Your task to perform on an android device: Go to Wikipedia Image 0: 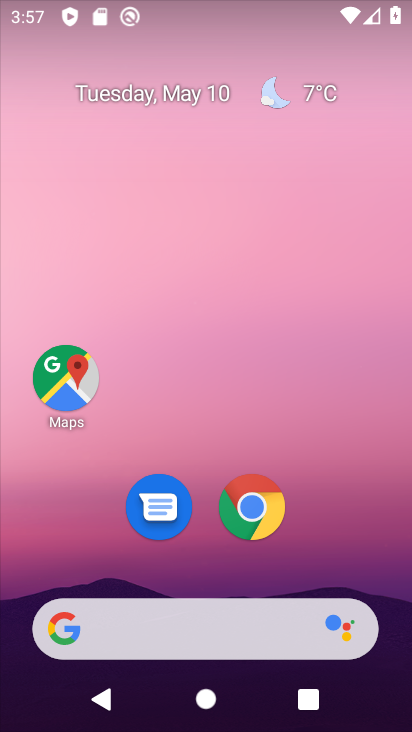
Step 0: click (244, 490)
Your task to perform on an android device: Go to Wikipedia Image 1: 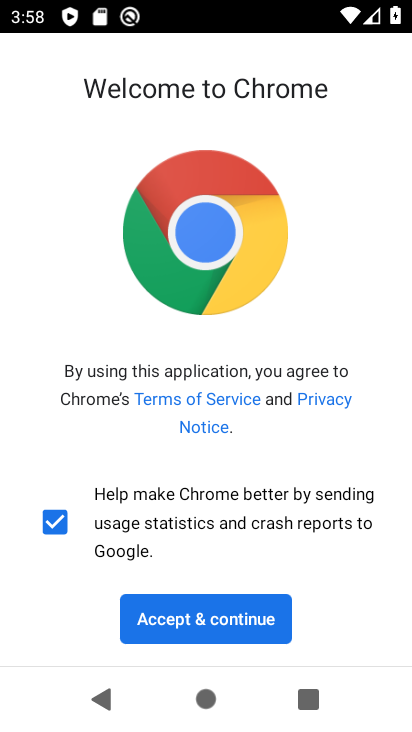
Step 1: click (213, 618)
Your task to perform on an android device: Go to Wikipedia Image 2: 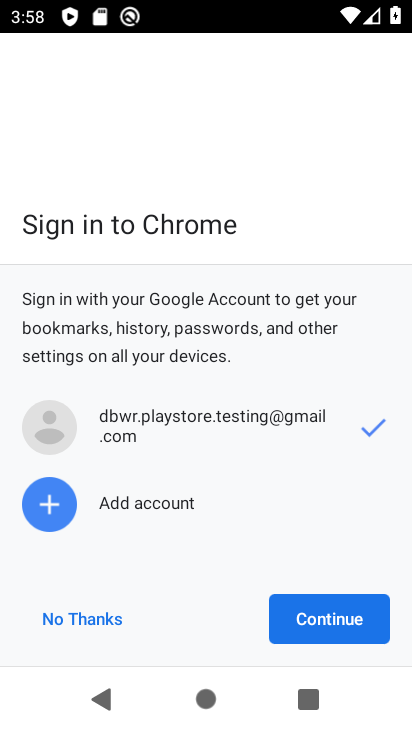
Step 2: click (288, 621)
Your task to perform on an android device: Go to Wikipedia Image 3: 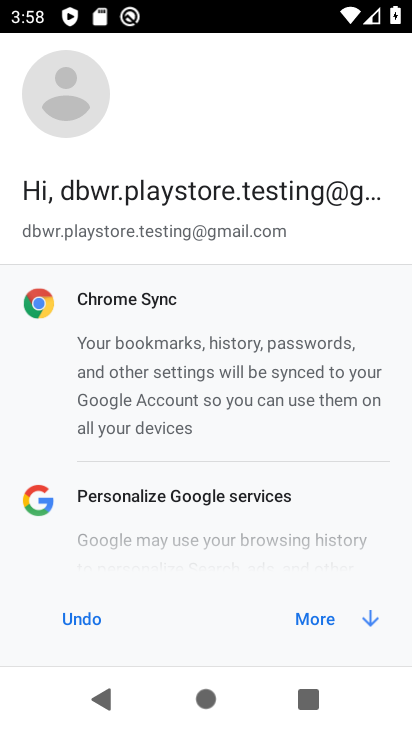
Step 3: click (293, 606)
Your task to perform on an android device: Go to Wikipedia Image 4: 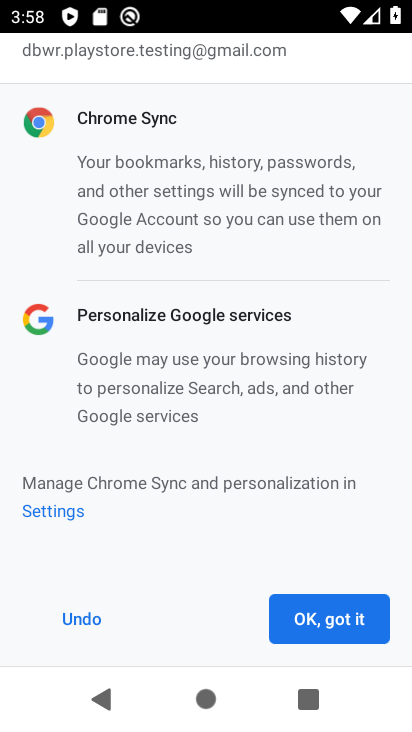
Step 4: click (314, 625)
Your task to perform on an android device: Go to Wikipedia Image 5: 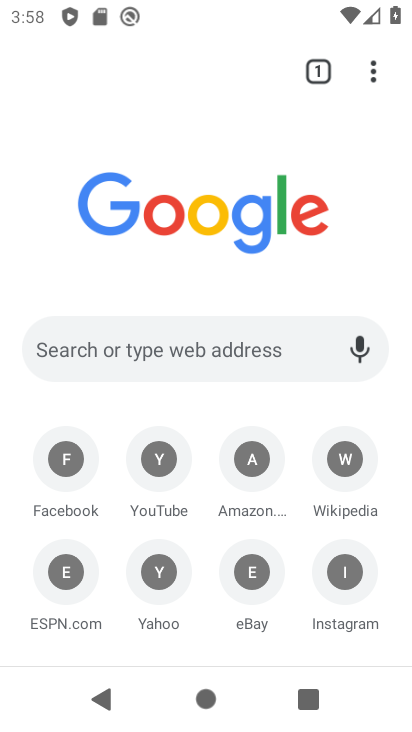
Step 5: click (340, 466)
Your task to perform on an android device: Go to Wikipedia Image 6: 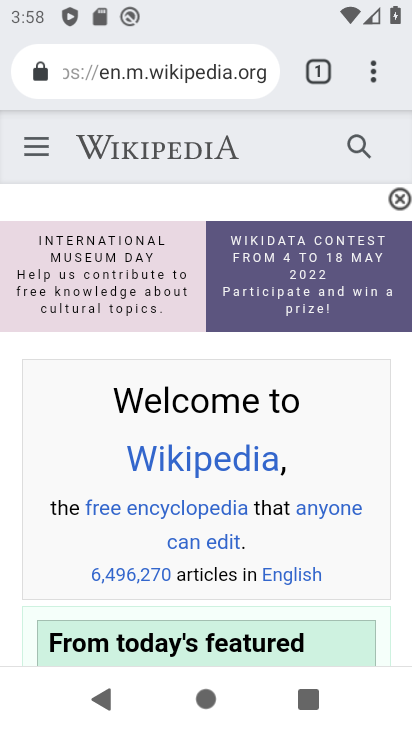
Step 6: task complete